Your task to perform on an android device: turn pop-ups off in chrome Image 0: 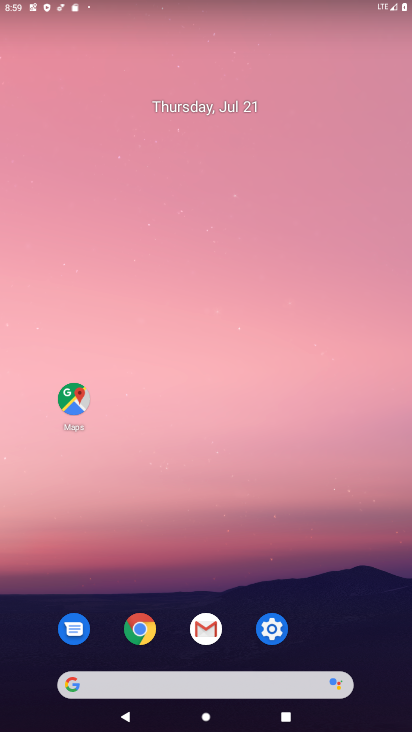
Step 0: click (139, 630)
Your task to perform on an android device: turn pop-ups off in chrome Image 1: 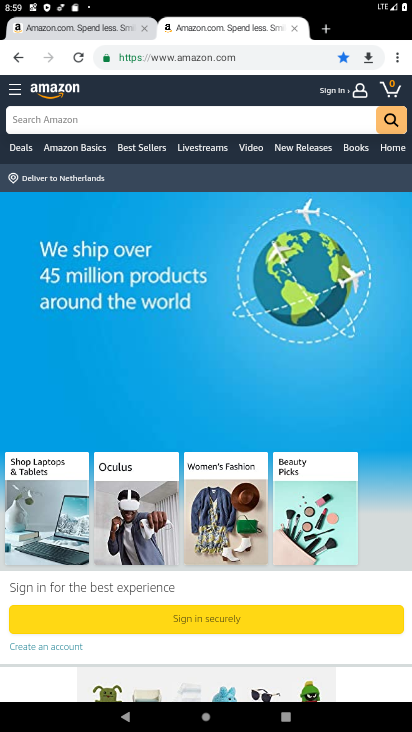
Step 1: click (400, 54)
Your task to perform on an android device: turn pop-ups off in chrome Image 2: 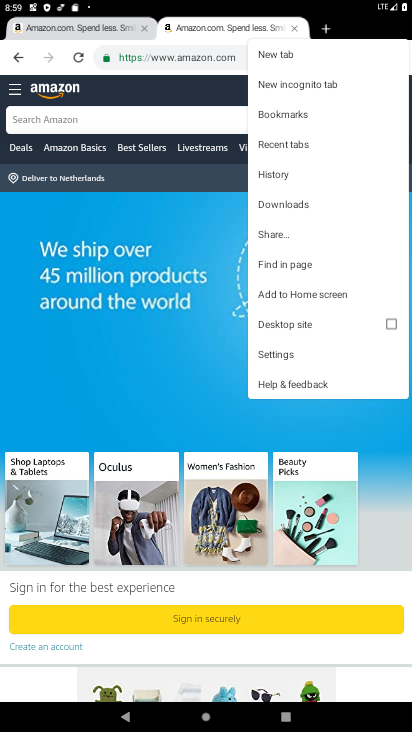
Step 2: click (271, 352)
Your task to perform on an android device: turn pop-ups off in chrome Image 3: 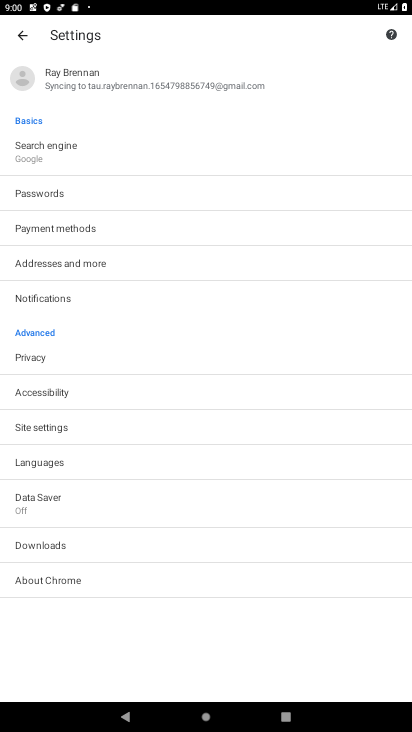
Step 3: click (53, 424)
Your task to perform on an android device: turn pop-ups off in chrome Image 4: 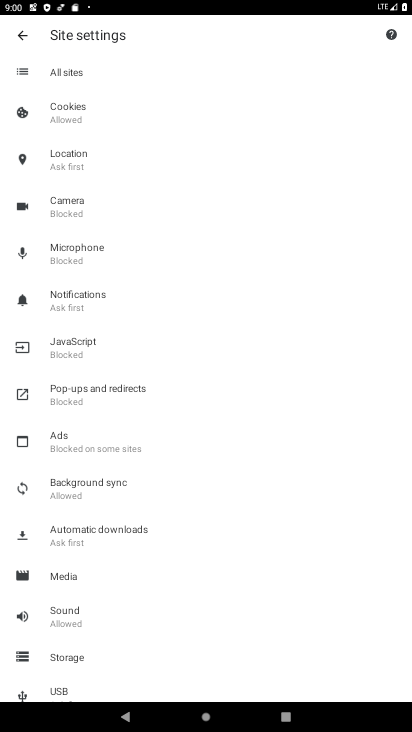
Step 4: click (67, 398)
Your task to perform on an android device: turn pop-ups off in chrome Image 5: 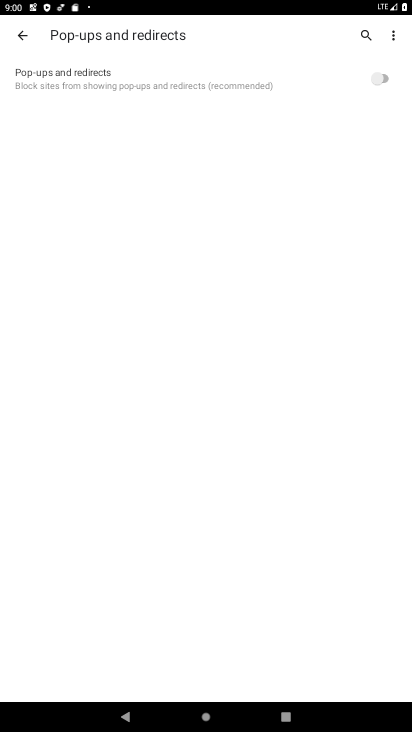
Step 5: click (383, 78)
Your task to perform on an android device: turn pop-ups off in chrome Image 6: 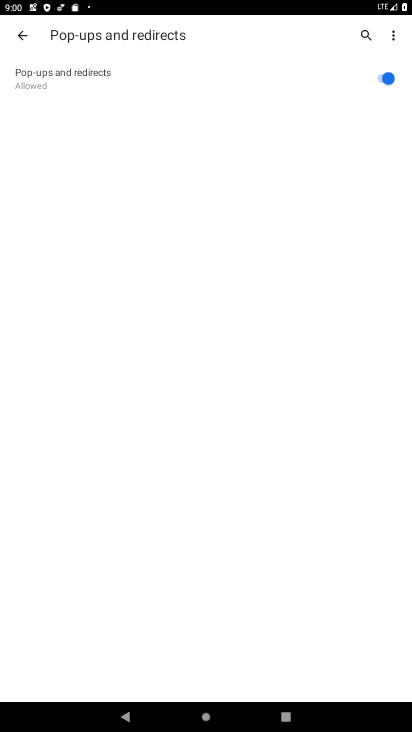
Step 6: click (382, 78)
Your task to perform on an android device: turn pop-ups off in chrome Image 7: 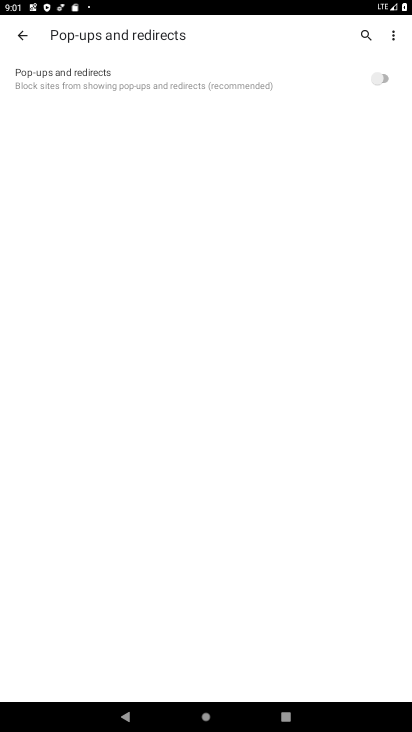
Step 7: task complete